Your task to perform on an android device: Open eBay Image 0: 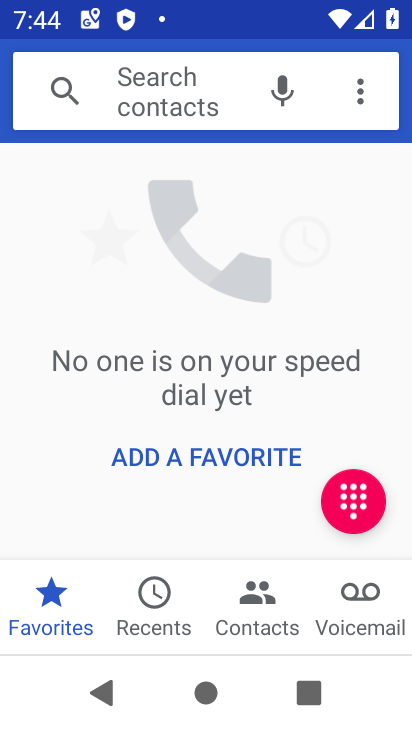
Step 0: press home button
Your task to perform on an android device: Open eBay Image 1: 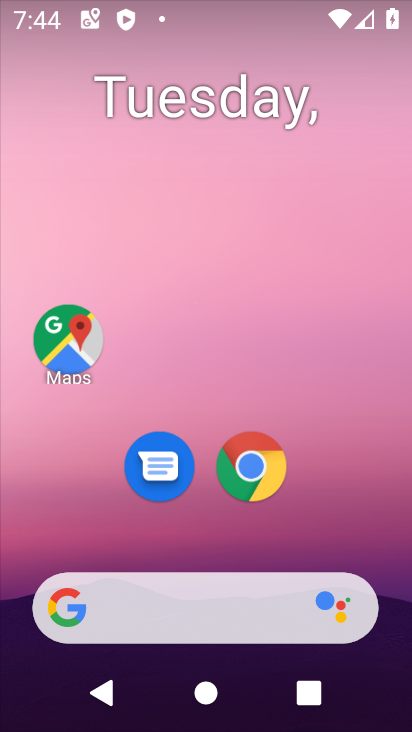
Step 1: click (246, 462)
Your task to perform on an android device: Open eBay Image 2: 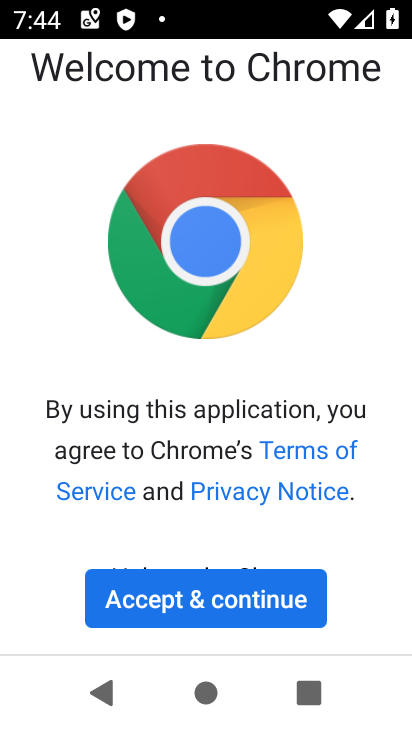
Step 2: click (196, 591)
Your task to perform on an android device: Open eBay Image 3: 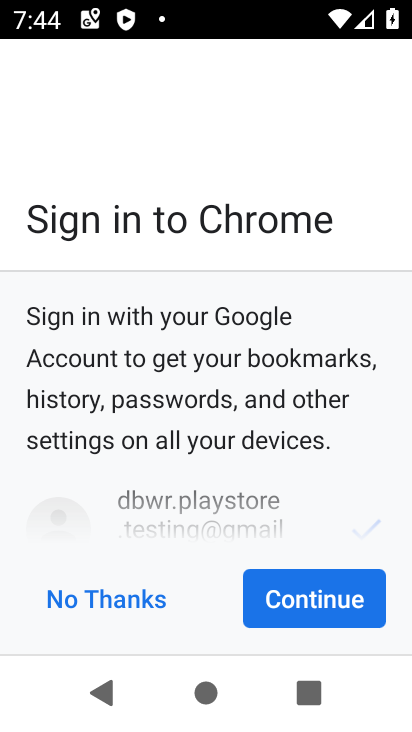
Step 3: click (315, 599)
Your task to perform on an android device: Open eBay Image 4: 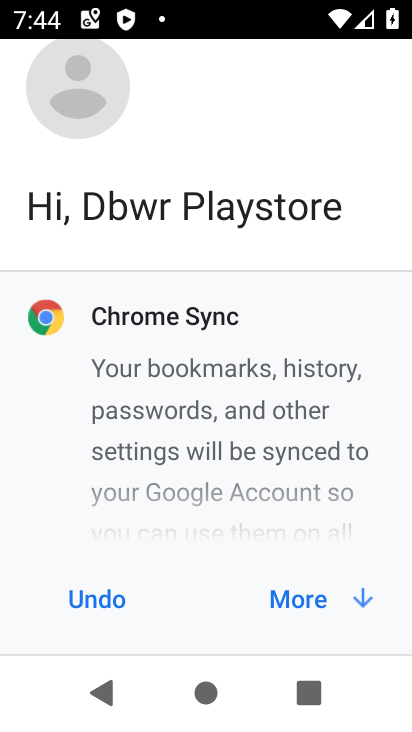
Step 4: click (315, 599)
Your task to perform on an android device: Open eBay Image 5: 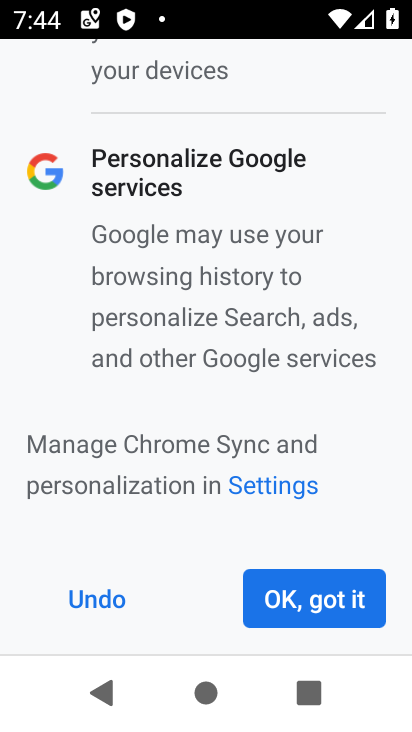
Step 5: click (315, 599)
Your task to perform on an android device: Open eBay Image 6: 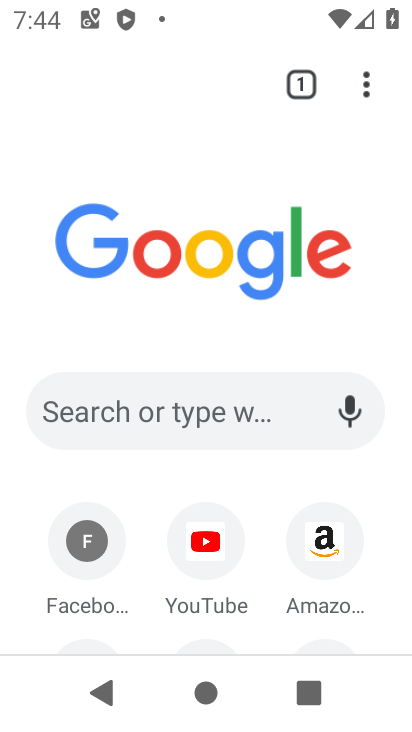
Step 6: drag from (262, 597) to (258, 180)
Your task to perform on an android device: Open eBay Image 7: 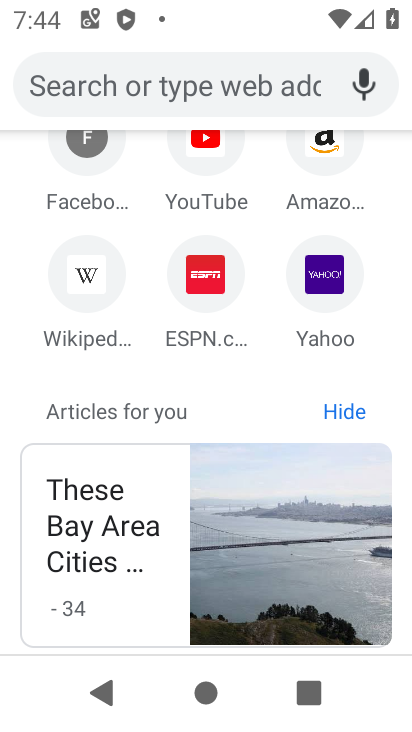
Step 7: click (127, 83)
Your task to perform on an android device: Open eBay Image 8: 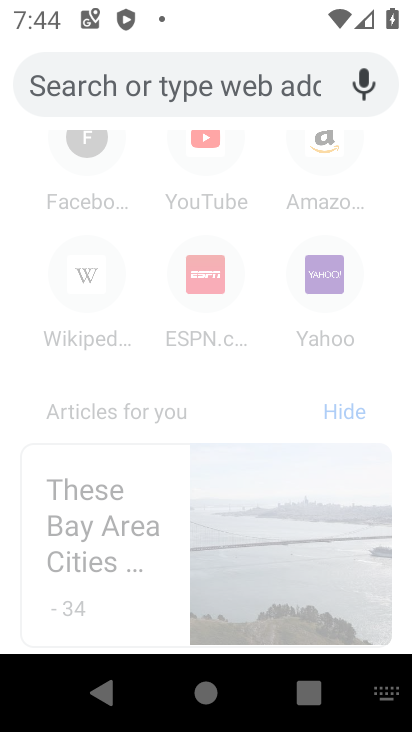
Step 8: type "ebay"
Your task to perform on an android device: Open eBay Image 9: 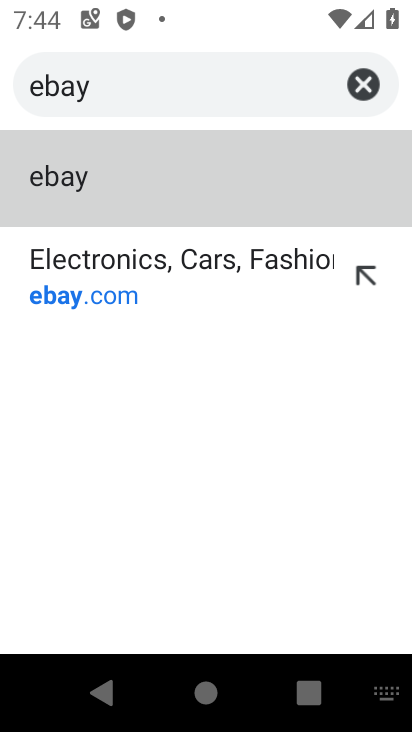
Step 9: click (107, 280)
Your task to perform on an android device: Open eBay Image 10: 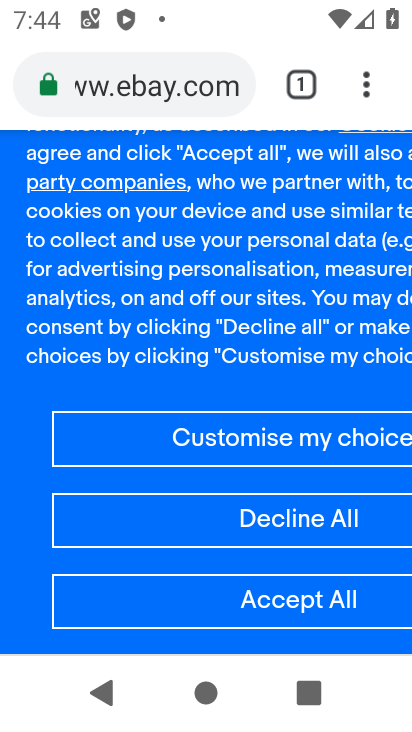
Step 10: click (325, 606)
Your task to perform on an android device: Open eBay Image 11: 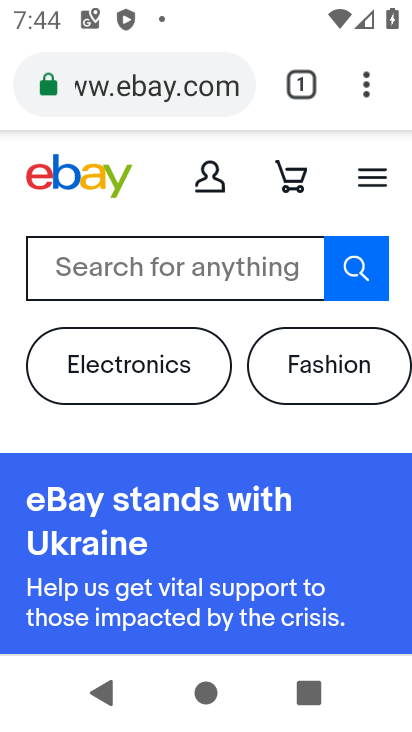
Step 11: task complete